Your task to perform on an android device: What is the recent news? Image 0: 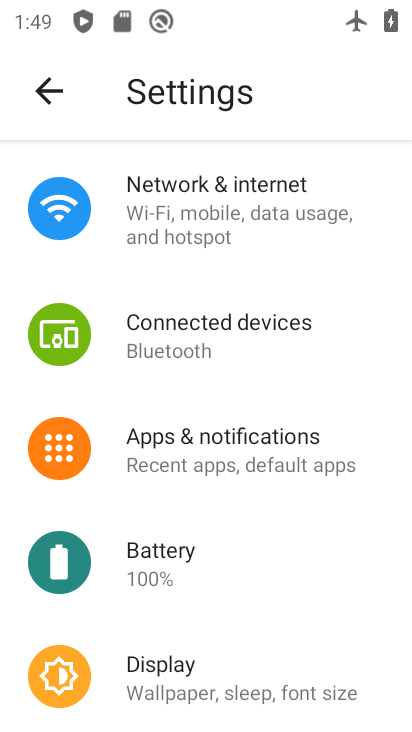
Step 0: press home button
Your task to perform on an android device: What is the recent news? Image 1: 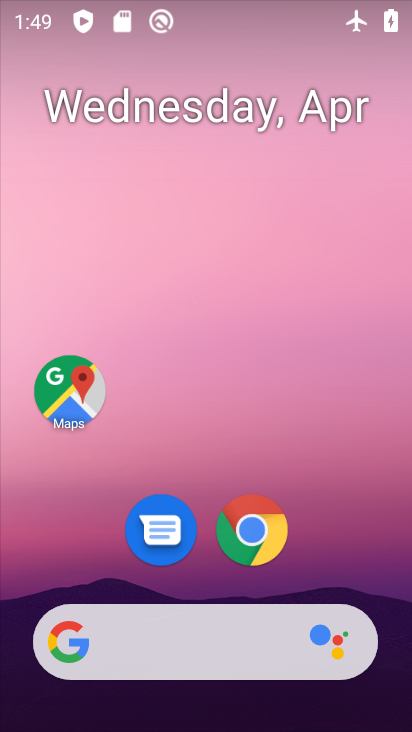
Step 1: click (256, 542)
Your task to perform on an android device: What is the recent news? Image 2: 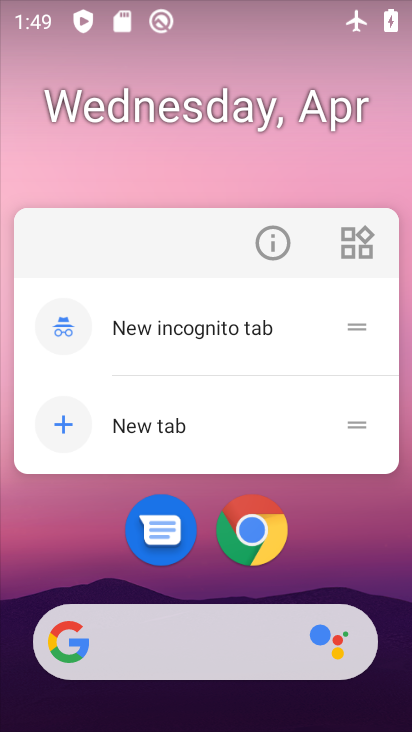
Step 2: click (251, 536)
Your task to perform on an android device: What is the recent news? Image 3: 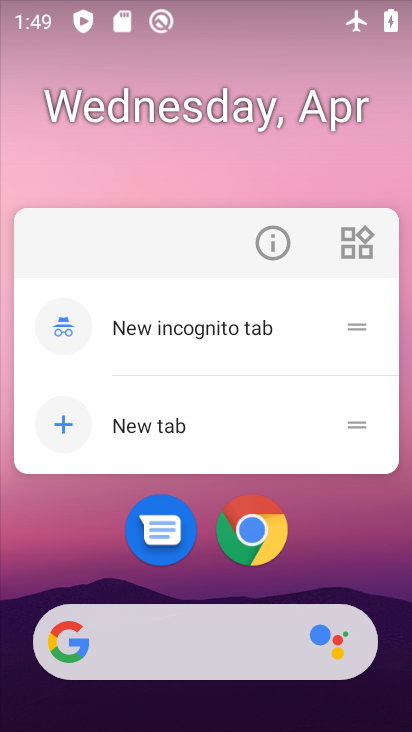
Step 3: click (256, 525)
Your task to perform on an android device: What is the recent news? Image 4: 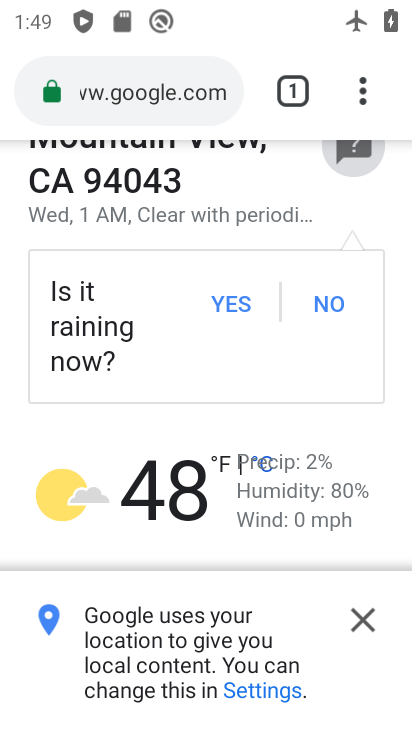
Step 4: drag from (203, 181) to (213, 529)
Your task to perform on an android device: What is the recent news? Image 5: 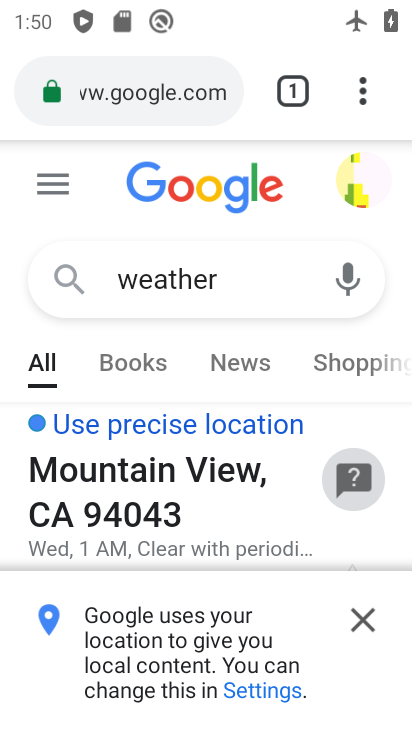
Step 5: click (226, 277)
Your task to perform on an android device: What is the recent news? Image 6: 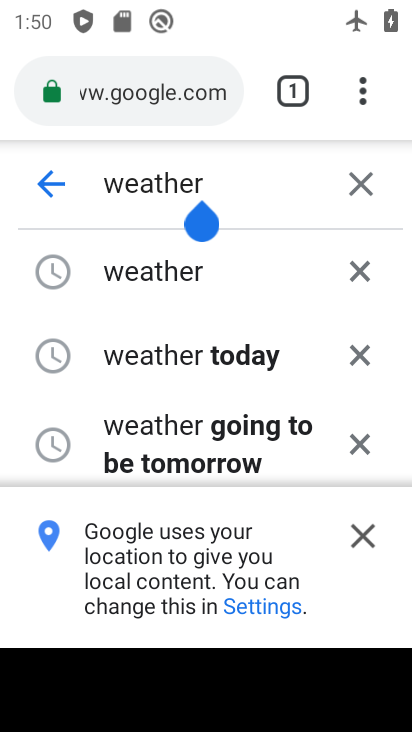
Step 6: drag from (209, 179) to (94, 188)
Your task to perform on an android device: What is the recent news? Image 7: 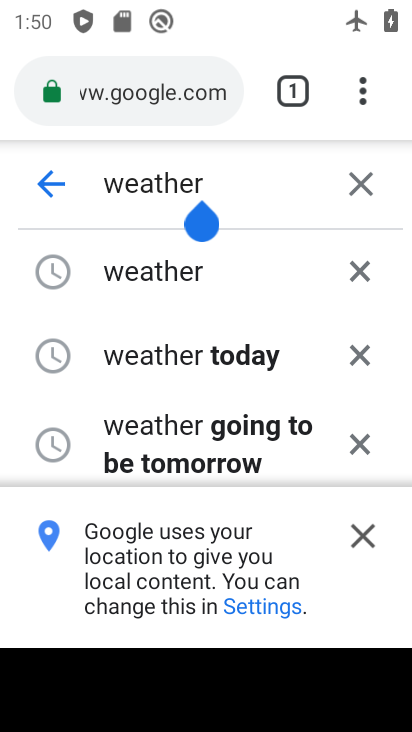
Step 7: click (160, 185)
Your task to perform on an android device: What is the recent news? Image 8: 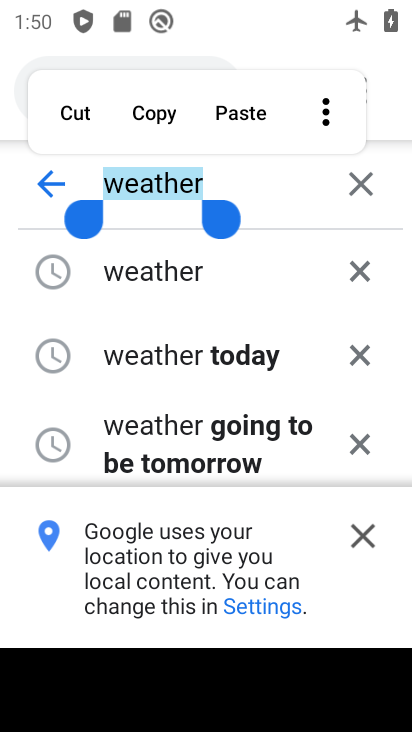
Step 8: type "news"
Your task to perform on an android device: What is the recent news? Image 9: 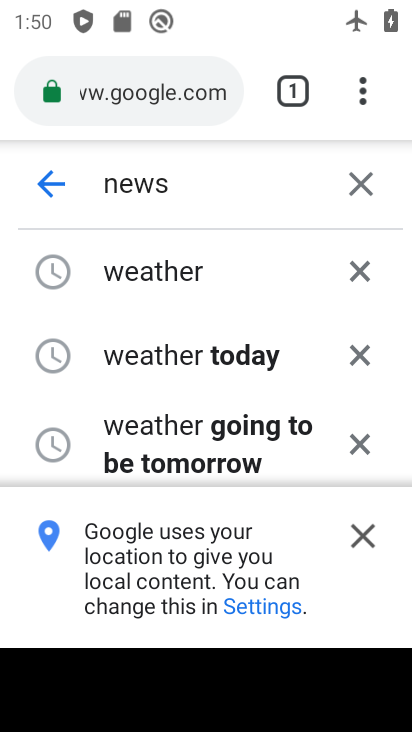
Step 9: press enter
Your task to perform on an android device: What is the recent news? Image 10: 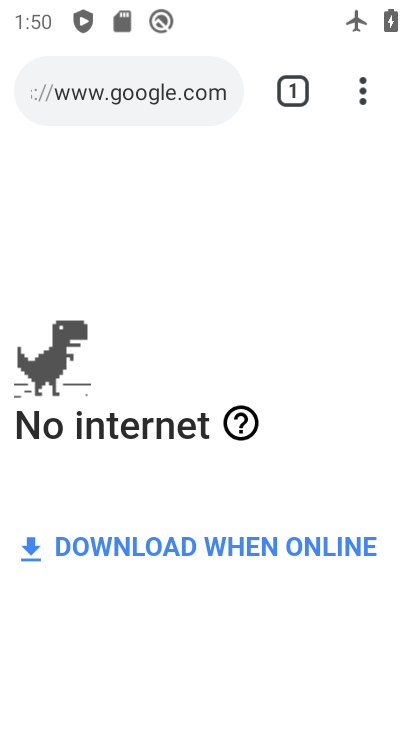
Step 10: task complete